Your task to perform on an android device: turn off airplane mode Image 0: 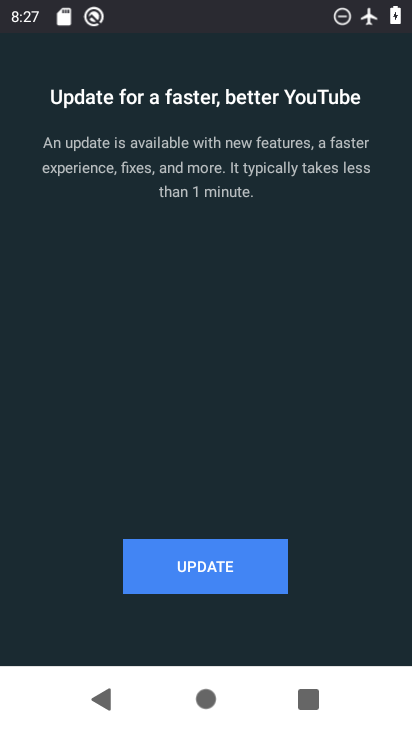
Step 0: press home button
Your task to perform on an android device: turn off airplane mode Image 1: 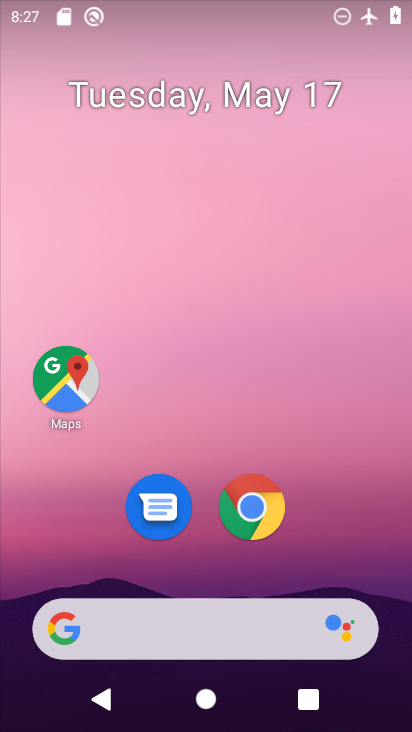
Step 1: drag from (263, 2) to (296, 641)
Your task to perform on an android device: turn off airplane mode Image 2: 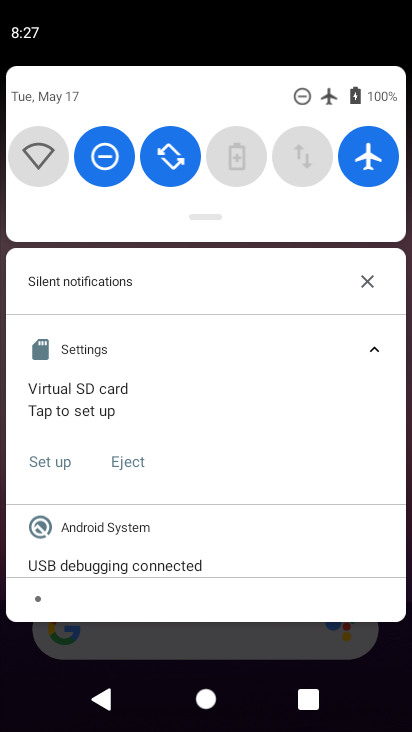
Step 2: click (373, 164)
Your task to perform on an android device: turn off airplane mode Image 3: 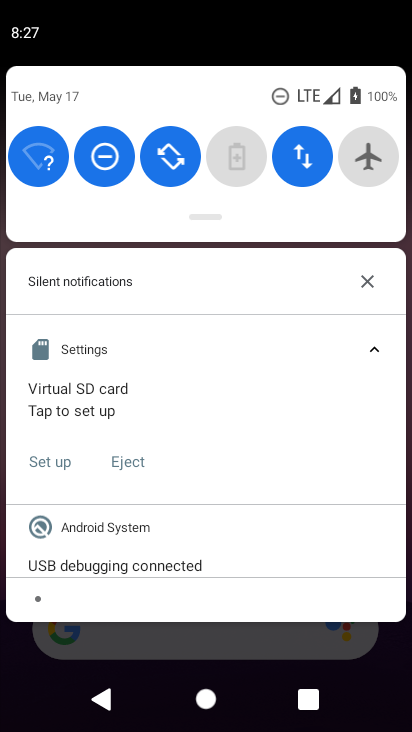
Step 3: task complete